Your task to perform on an android device: Open Amazon Image 0: 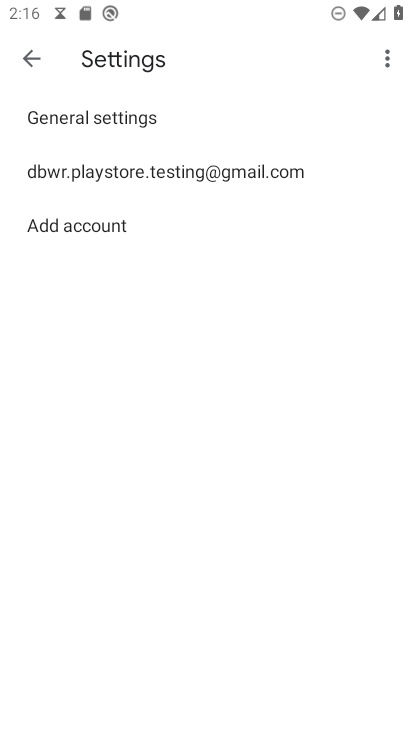
Step 0: press home button
Your task to perform on an android device: Open Amazon Image 1: 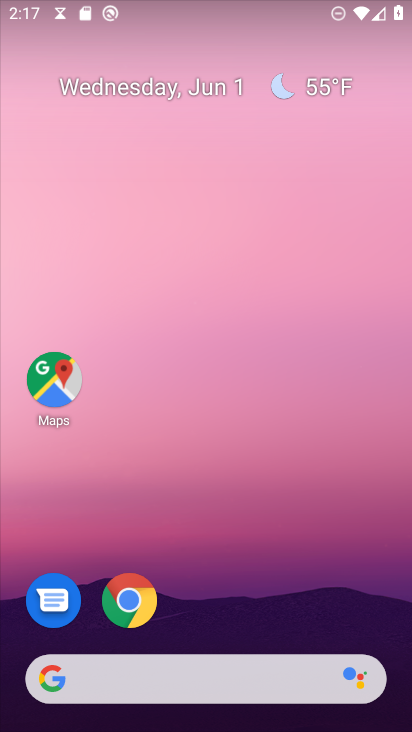
Step 1: click (140, 610)
Your task to perform on an android device: Open Amazon Image 2: 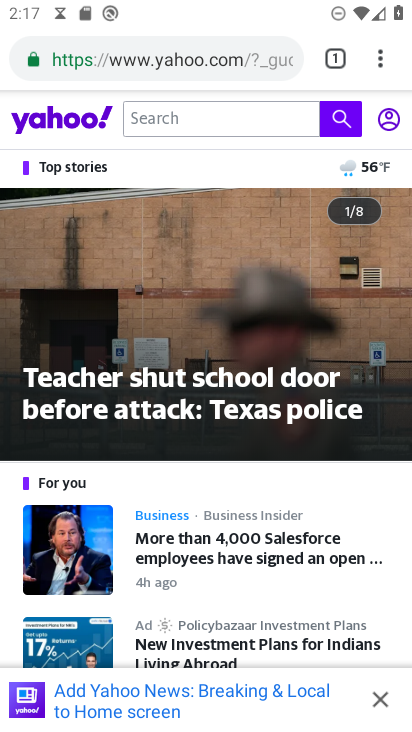
Step 2: click (333, 62)
Your task to perform on an android device: Open Amazon Image 3: 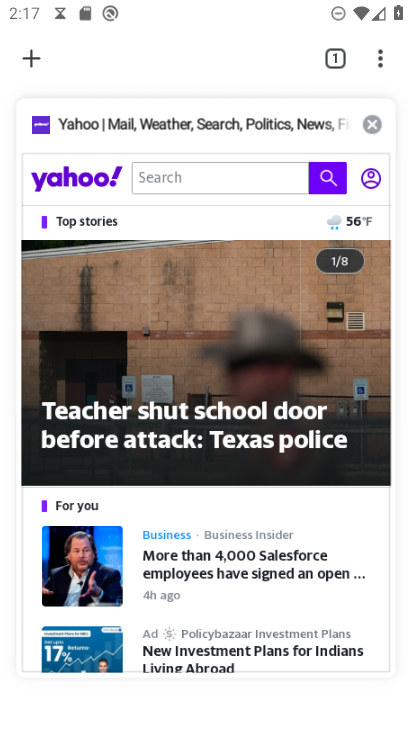
Step 3: click (29, 54)
Your task to perform on an android device: Open Amazon Image 4: 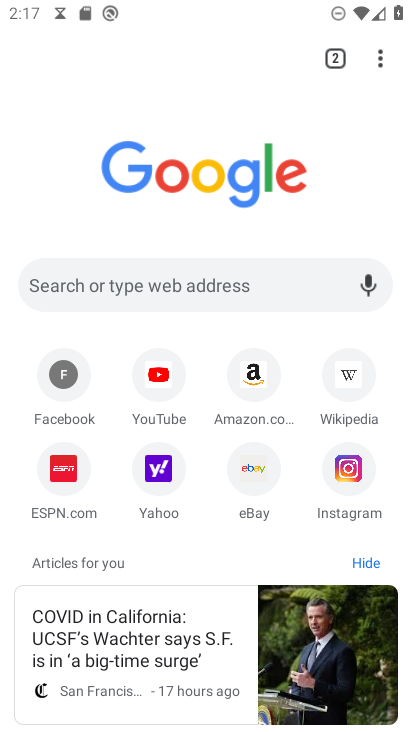
Step 4: click (244, 357)
Your task to perform on an android device: Open Amazon Image 5: 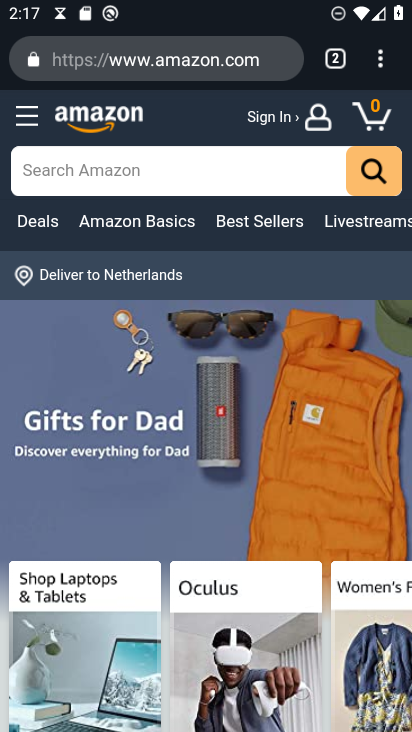
Step 5: task complete